Your task to perform on an android device: turn off location Image 0: 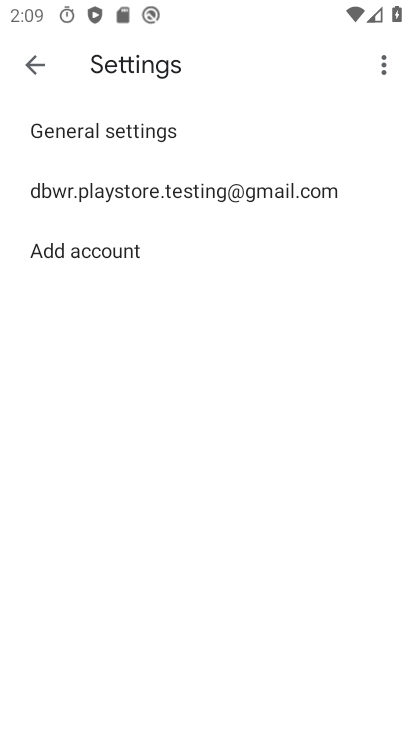
Step 0: press home button
Your task to perform on an android device: turn off location Image 1: 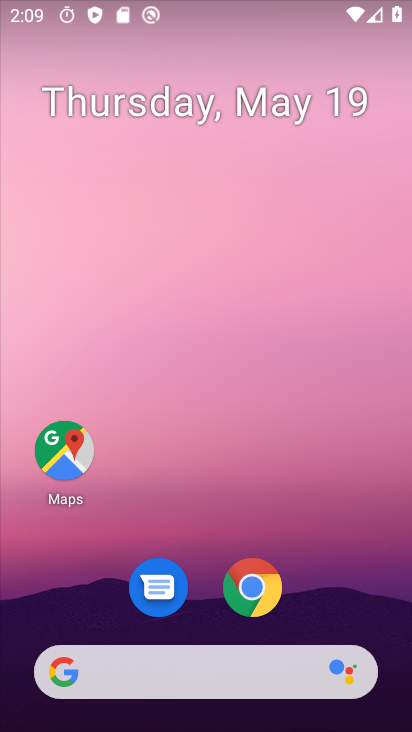
Step 1: drag from (205, 726) to (215, 183)
Your task to perform on an android device: turn off location Image 2: 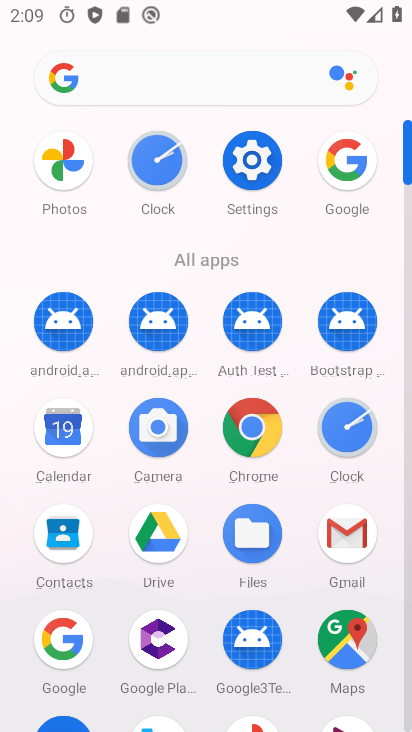
Step 2: click (253, 157)
Your task to perform on an android device: turn off location Image 3: 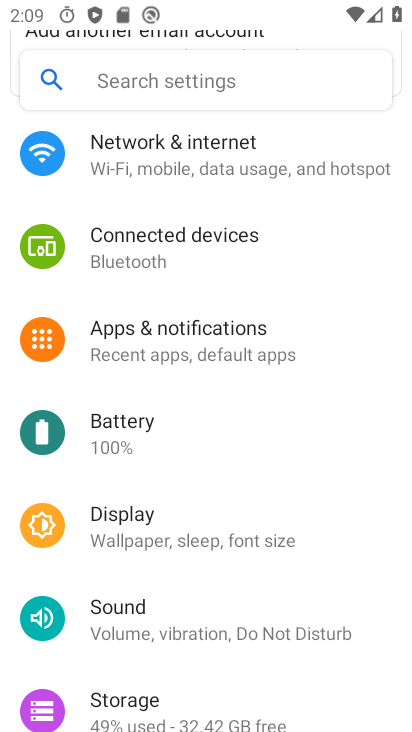
Step 3: drag from (181, 687) to (187, 342)
Your task to perform on an android device: turn off location Image 4: 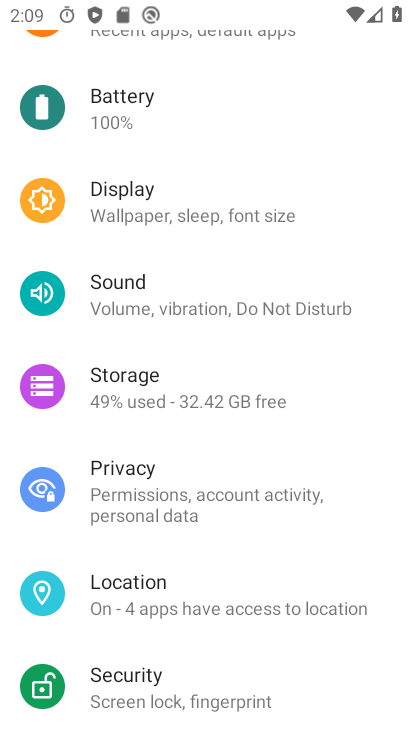
Step 4: click (131, 585)
Your task to perform on an android device: turn off location Image 5: 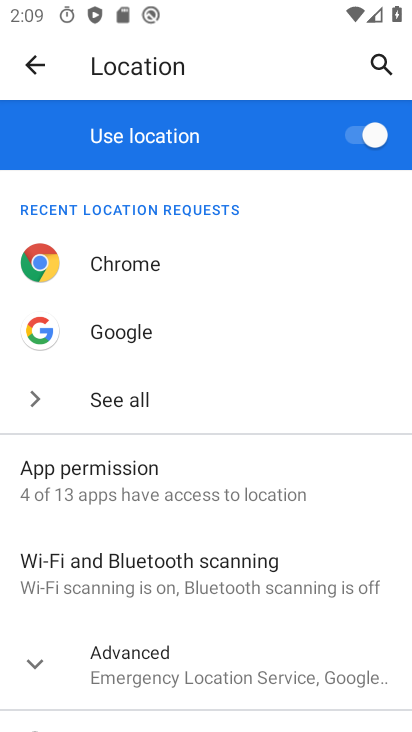
Step 5: click (361, 139)
Your task to perform on an android device: turn off location Image 6: 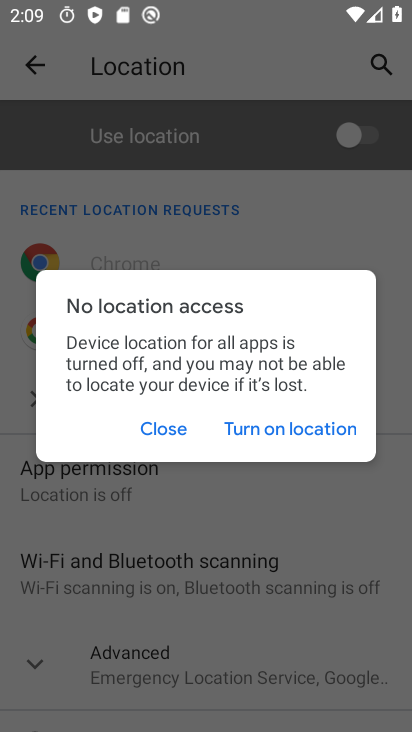
Step 6: click (166, 426)
Your task to perform on an android device: turn off location Image 7: 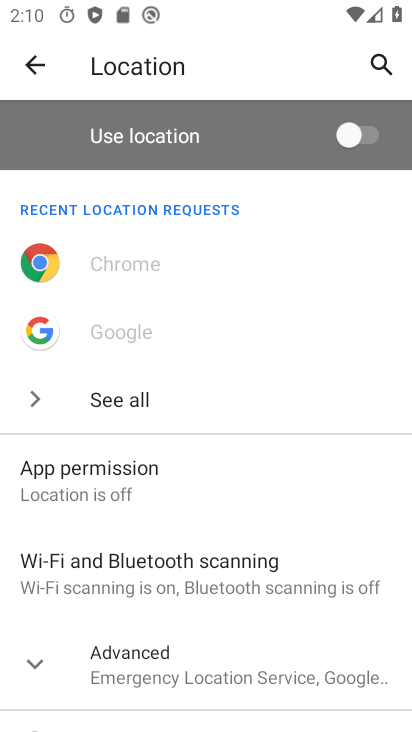
Step 7: task complete